Your task to perform on an android device: open the mobile data screen to see how much data has been used Image 0: 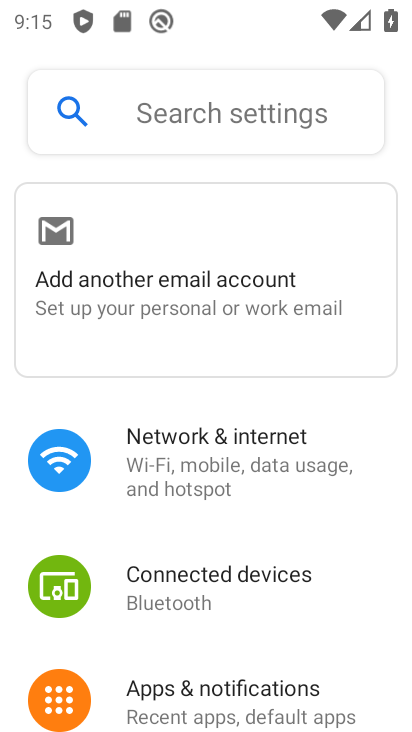
Step 0: click (181, 465)
Your task to perform on an android device: open the mobile data screen to see how much data has been used Image 1: 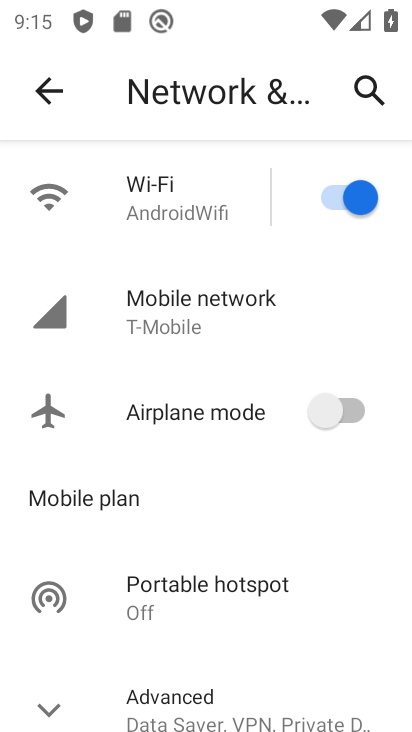
Step 1: click (158, 326)
Your task to perform on an android device: open the mobile data screen to see how much data has been used Image 2: 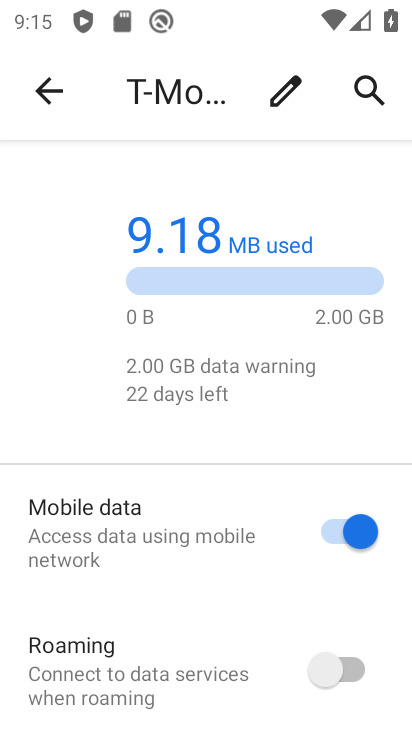
Step 2: drag from (159, 539) to (145, 201)
Your task to perform on an android device: open the mobile data screen to see how much data has been used Image 3: 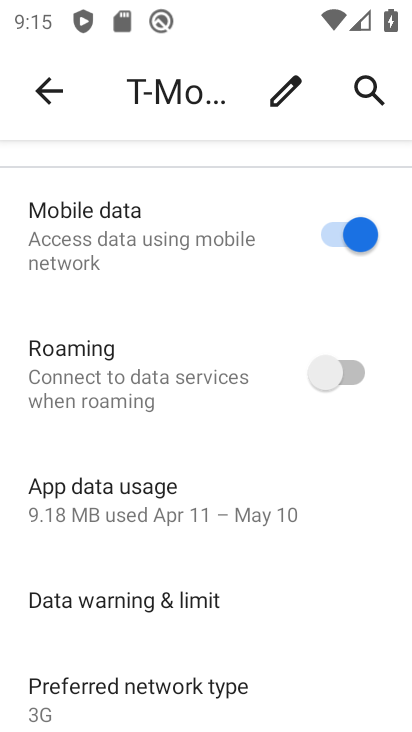
Step 3: drag from (144, 215) to (155, 434)
Your task to perform on an android device: open the mobile data screen to see how much data has been used Image 4: 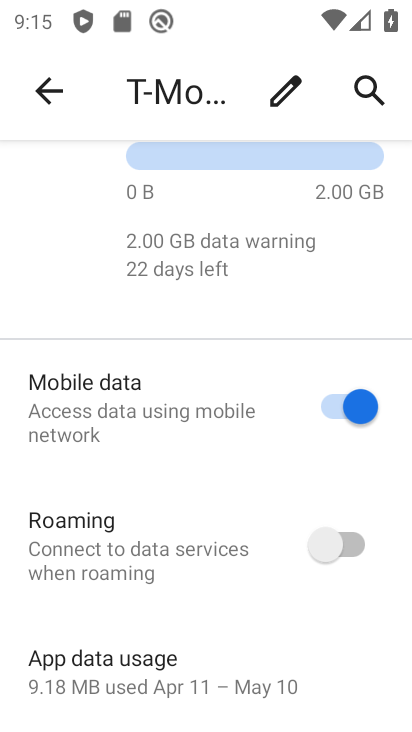
Step 4: drag from (159, 287) to (163, 441)
Your task to perform on an android device: open the mobile data screen to see how much data has been used Image 5: 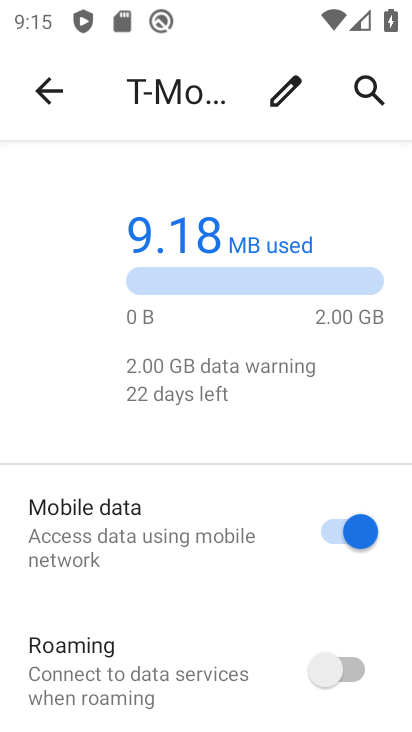
Step 5: drag from (192, 525) to (163, 229)
Your task to perform on an android device: open the mobile data screen to see how much data has been used Image 6: 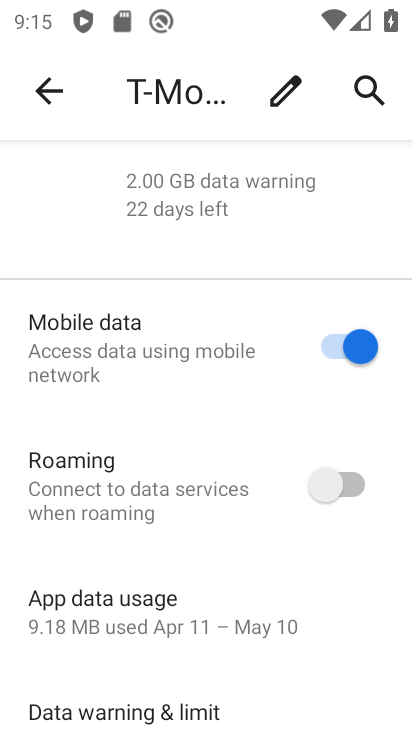
Step 6: drag from (171, 555) to (171, 261)
Your task to perform on an android device: open the mobile data screen to see how much data has been used Image 7: 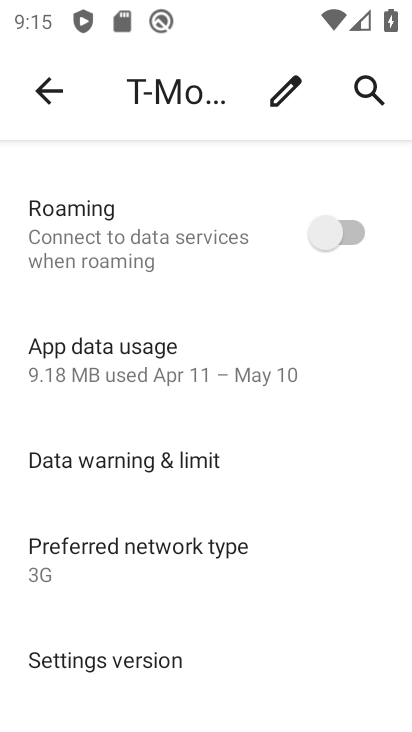
Step 7: click (144, 370)
Your task to perform on an android device: open the mobile data screen to see how much data has been used Image 8: 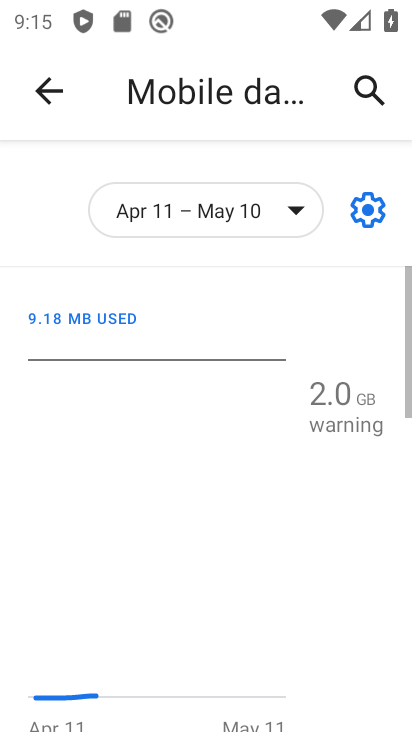
Step 8: task complete